Your task to perform on an android device: Go to Yahoo.com Image 0: 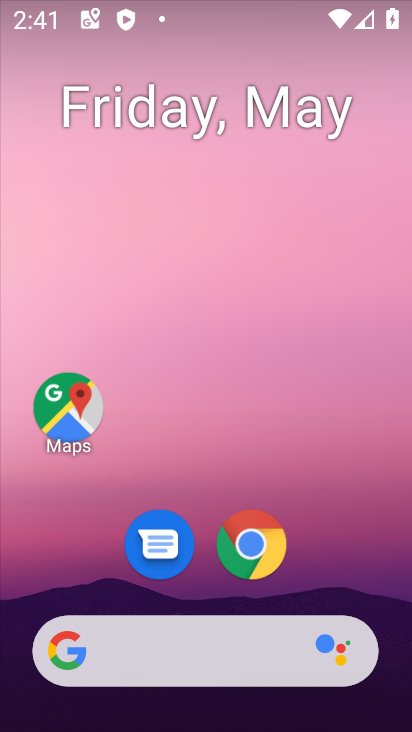
Step 0: click (236, 538)
Your task to perform on an android device: Go to Yahoo.com Image 1: 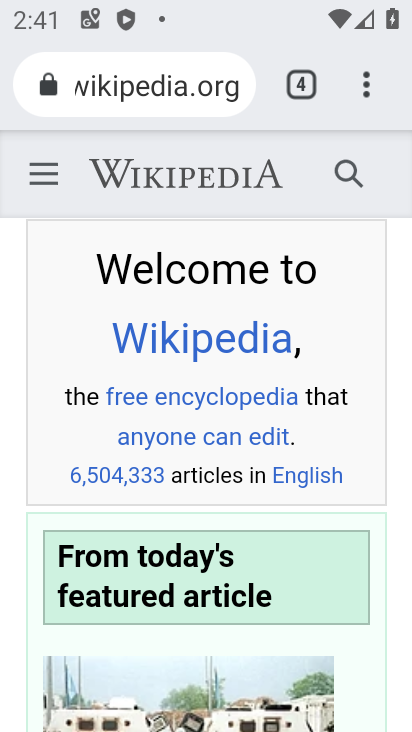
Step 1: click (303, 98)
Your task to perform on an android device: Go to Yahoo.com Image 2: 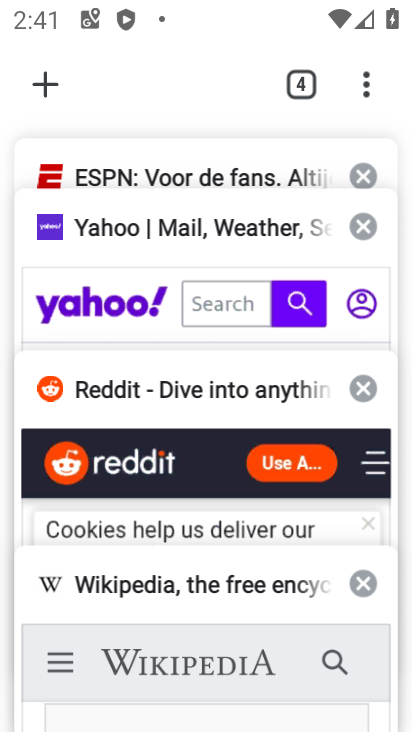
Step 2: click (85, 242)
Your task to perform on an android device: Go to Yahoo.com Image 3: 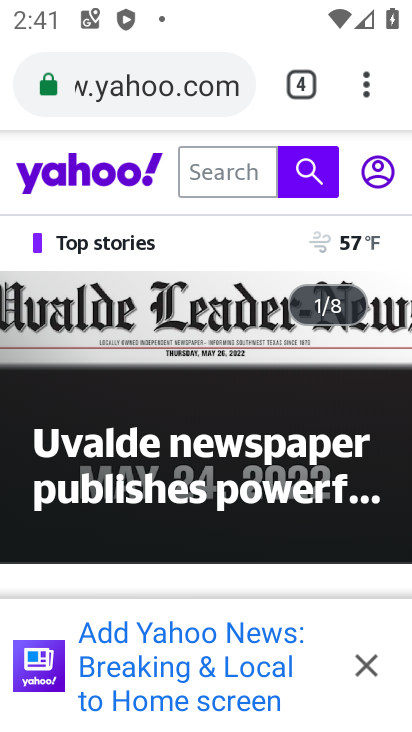
Step 3: task complete